Your task to perform on an android device: turn off location Image 0: 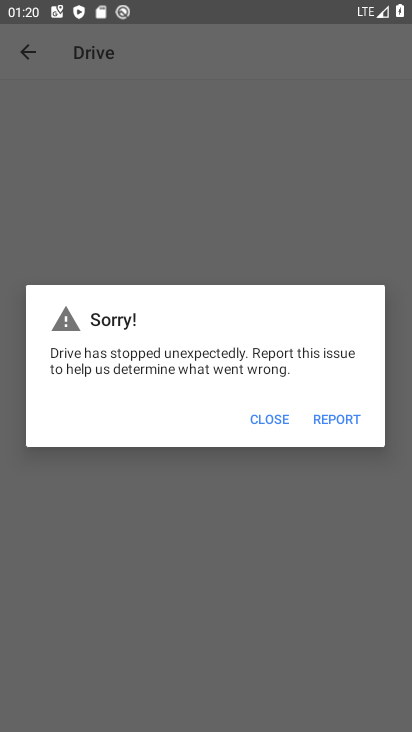
Step 0: press home button
Your task to perform on an android device: turn off location Image 1: 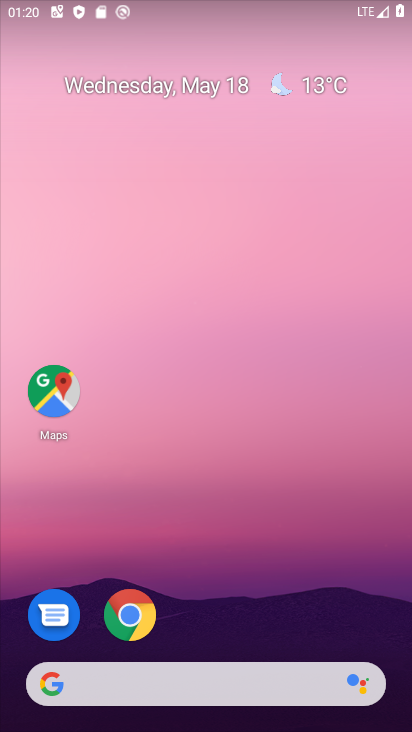
Step 1: drag from (176, 674) to (296, 96)
Your task to perform on an android device: turn off location Image 2: 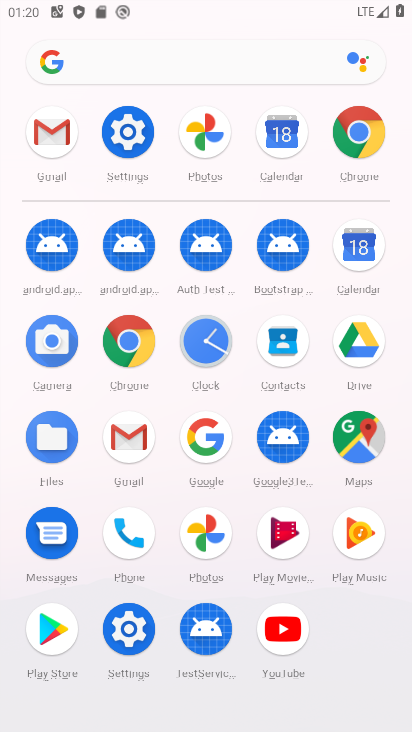
Step 2: click (132, 127)
Your task to perform on an android device: turn off location Image 3: 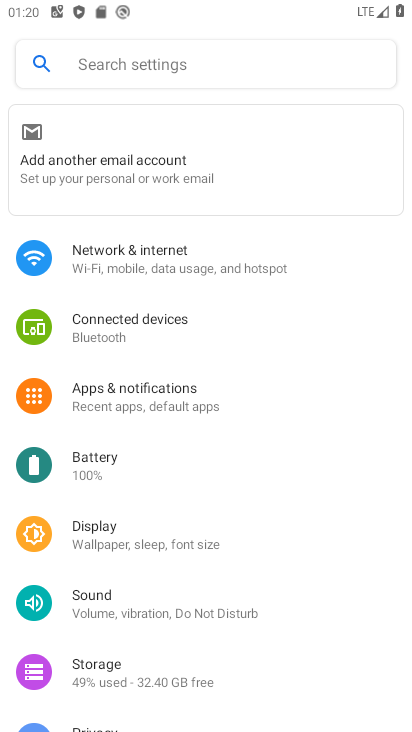
Step 3: drag from (174, 599) to (313, 238)
Your task to perform on an android device: turn off location Image 4: 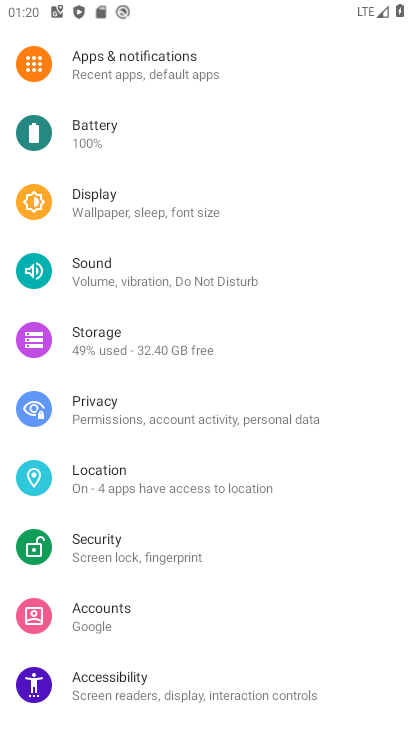
Step 4: click (138, 484)
Your task to perform on an android device: turn off location Image 5: 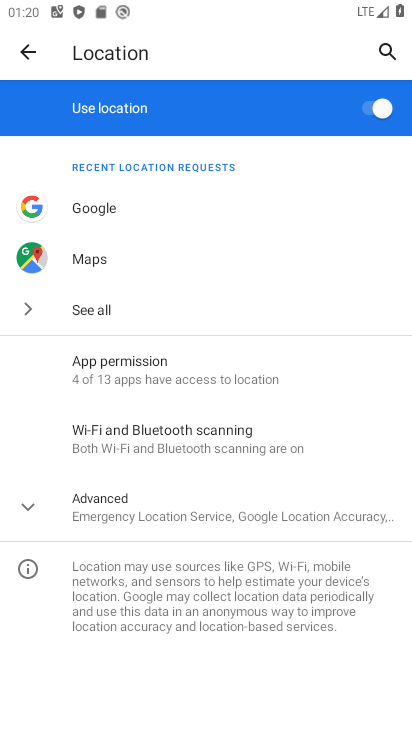
Step 5: click (370, 113)
Your task to perform on an android device: turn off location Image 6: 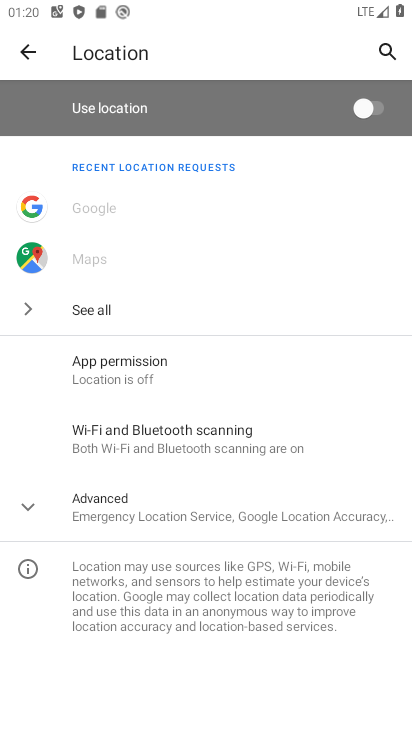
Step 6: task complete